Your task to perform on an android device: Check the weather Image 0: 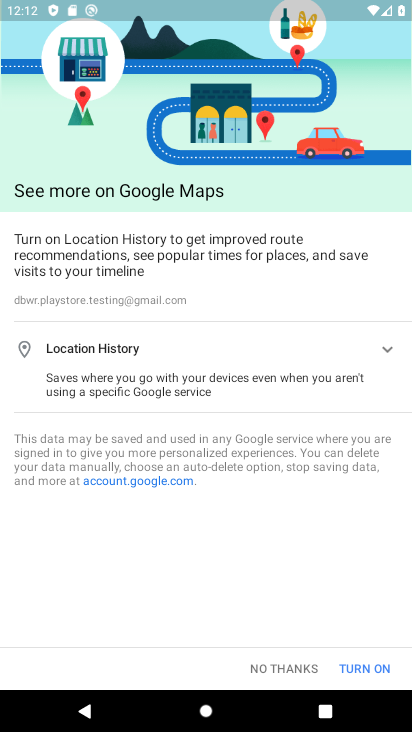
Step 0: press home button
Your task to perform on an android device: Check the weather Image 1: 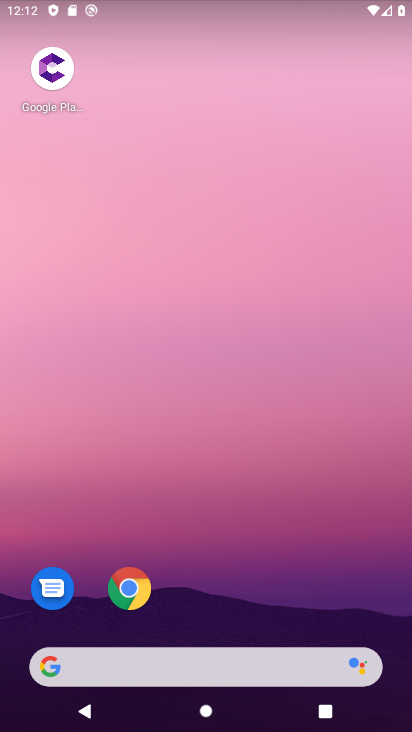
Step 1: click (85, 661)
Your task to perform on an android device: Check the weather Image 2: 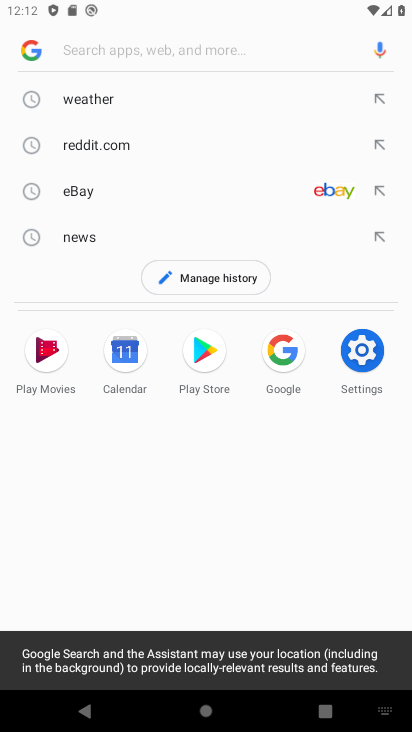
Step 2: click (72, 103)
Your task to perform on an android device: Check the weather Image 3: 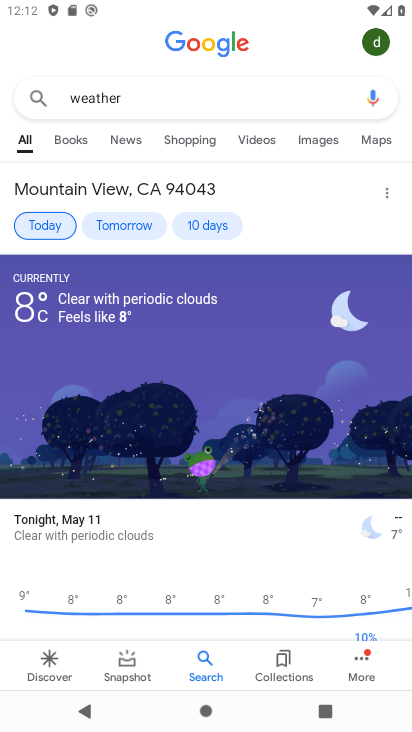
Step 3: task complete